Your task to perform on an android device: Is it going to rain today? Image 0: 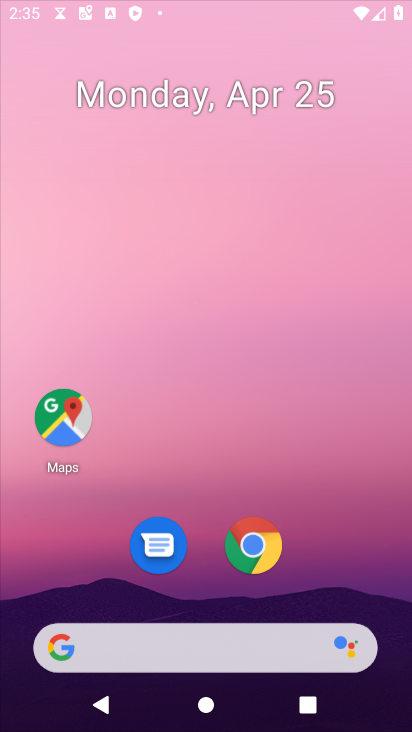
Step 0: drag from (155, 516) to (140, 346)
Your task to perform on an android device: Is it going to rain today? Image 1: 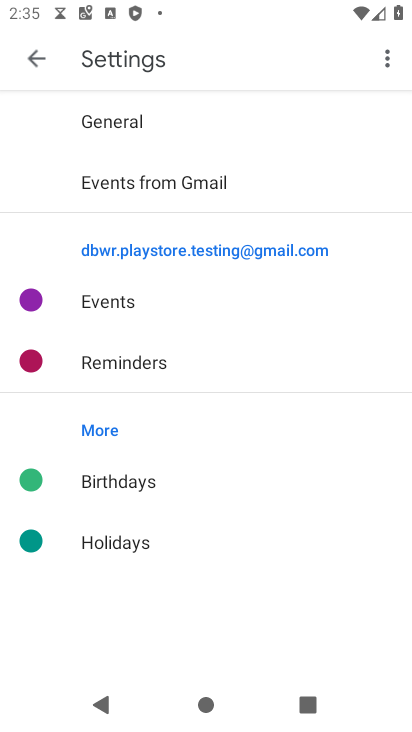
Step 1: press home button
Your task to perform on an android device: Is it going to rain today? Image 2: 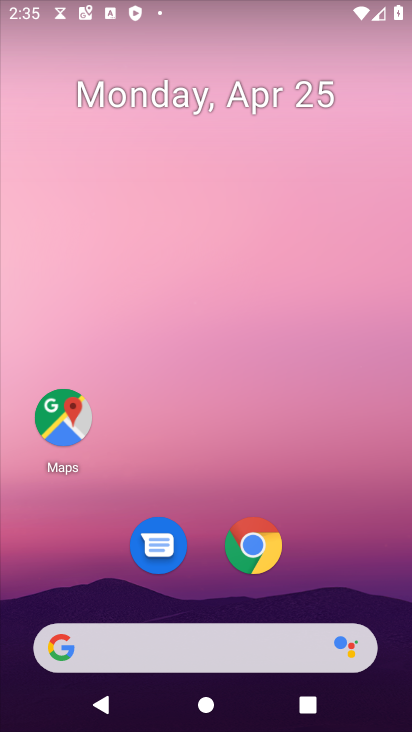
Step 2: drag from (219, 618) to (159, 95)
Your task to perform on an android device: Is it going to rain today? Image 3: 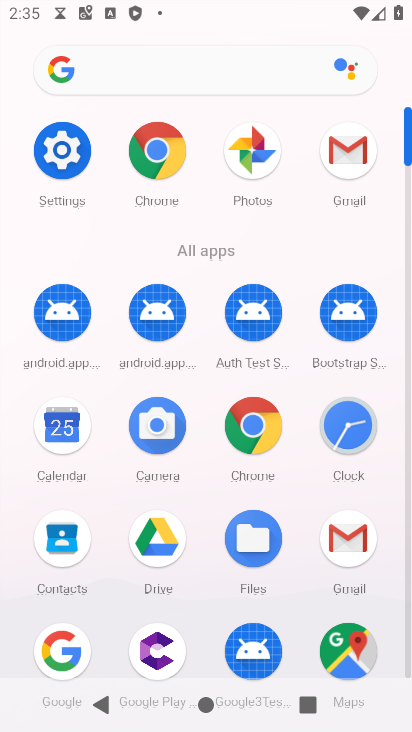
Step 3: click (52, 642)
Your task to perform on an android device: Is it going to rain today? Image 4: 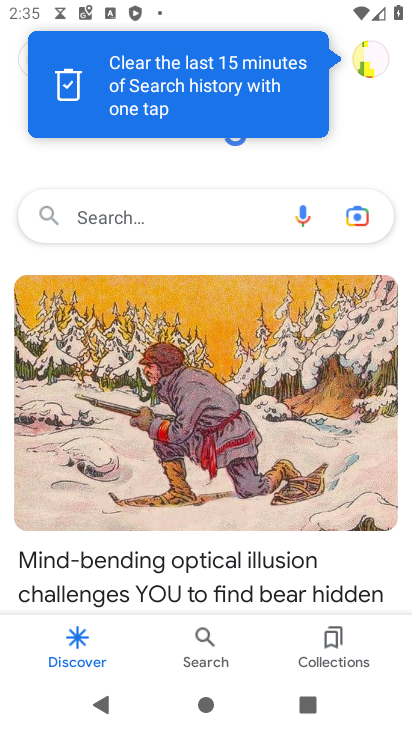
Step 4: click (197, 219)
Your task to perform on an android device: Is it going to rain today? Image 5: 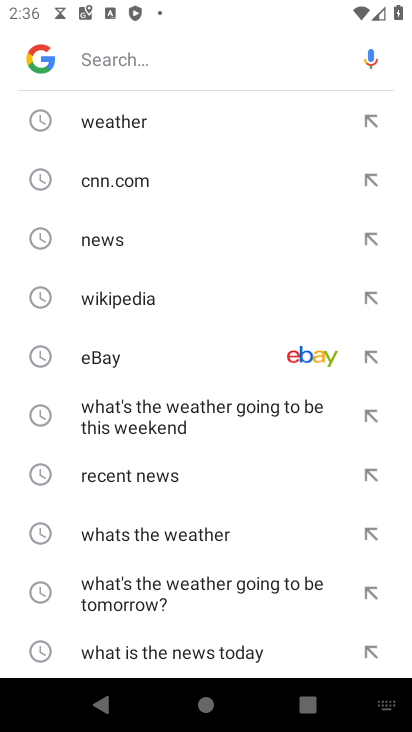
Step 5: click (137, 110)
Your task to perform on an android device: Is it going to rain today? Image 6: 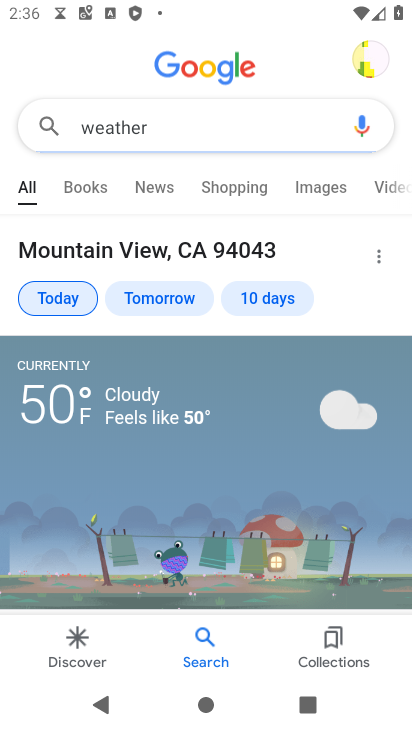
Step 6: task complete